Your task to perform on an android device: turn off javascript in the chrome app Image 0: 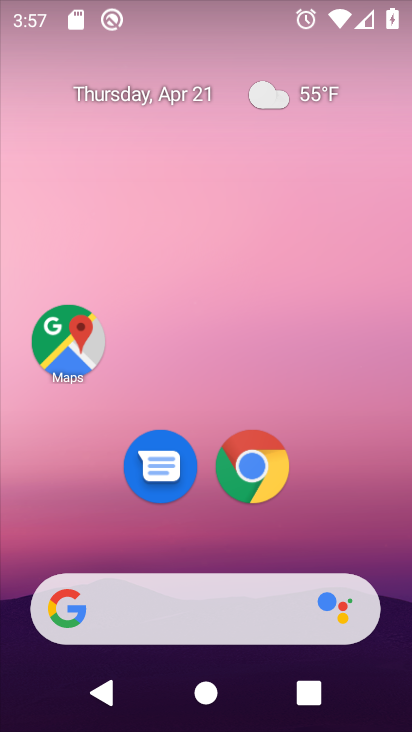
Step 0: click (251, 469)
Your task to perform on an android device: turn off javascript in the chrome app Image 1: 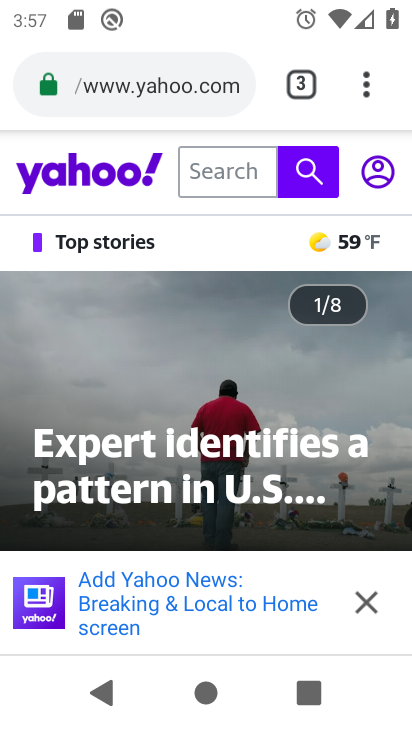
Step 1: click (366, 91)
Your task to perform on an android device: turn off javascript in the chrome app Image 2: 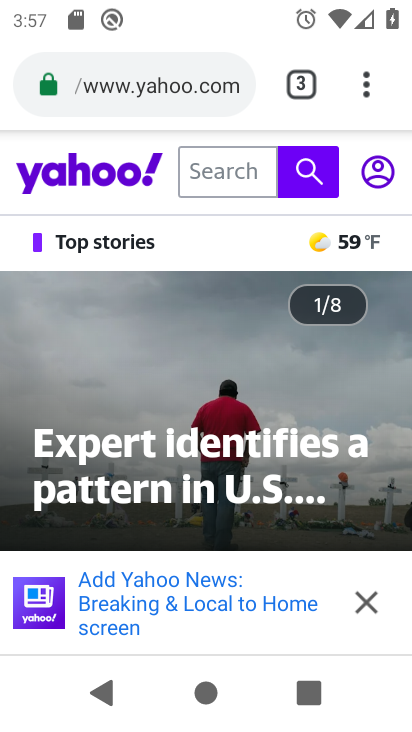
Step 2: click (366, 91)
Your task to perform on an android device: turn off javascript in the chrome app Image 3: 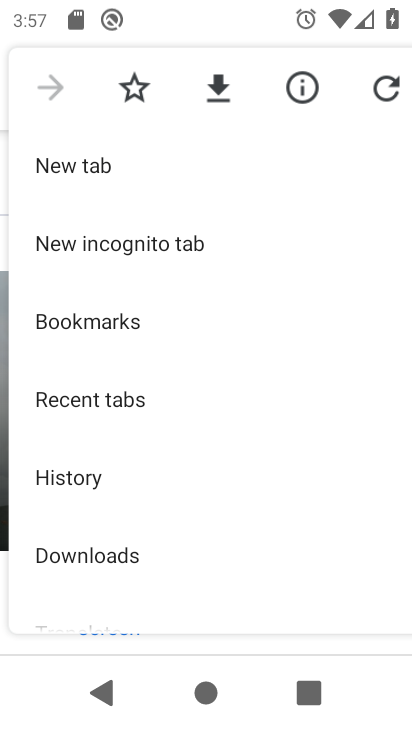
Step 3: drag from (231, 555) to (140, 96)
Your task to perform on an android device: turn off javascript in the chrome app Image 4: 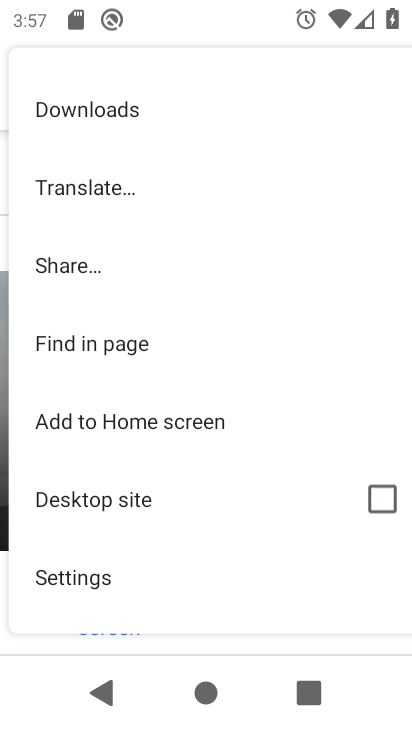
Step 4: click (141, 573)
Your task to perform on an android device: turn off javascript in the chrome app Image 5: 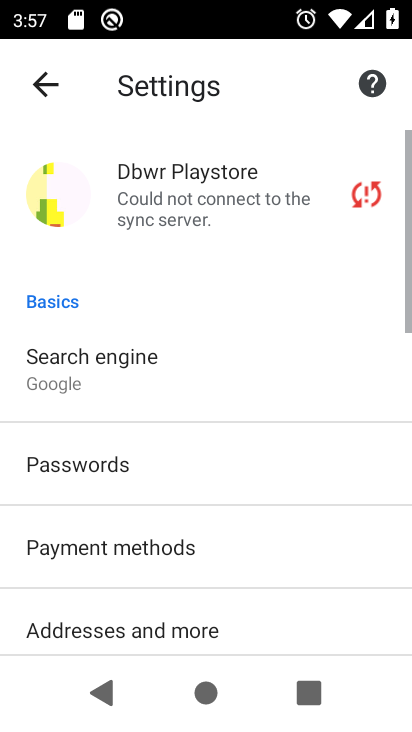
Step 5: drag from (200, 530) to (180, 72)
Your task to perform on an android device: turn off javascript in the chrome app Image 6: 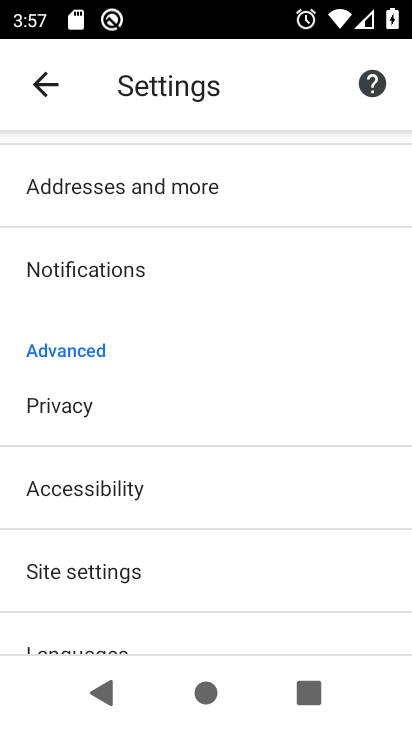
Step 6: drag from (151, 551) to (164, 165)
Your task to perform on an android device: turn off javascript in the chrome app Image 7: 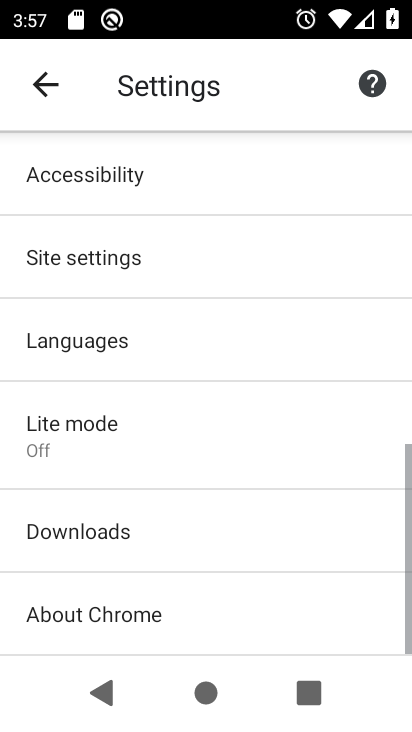
Step 7: click (160, 269)
Your task to perform on an android device: turn off javascript in the chrome app Image 8: 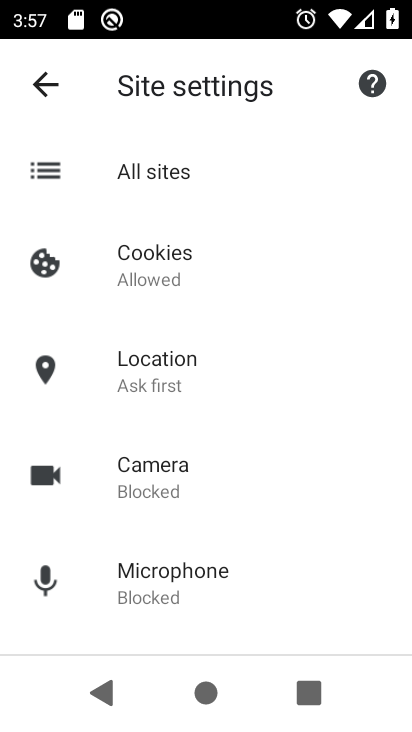
Step 8: drag from (232, 515) to (214, 159)
Your task to perform on an android device: turn off javascript in the chrome app Image 9: 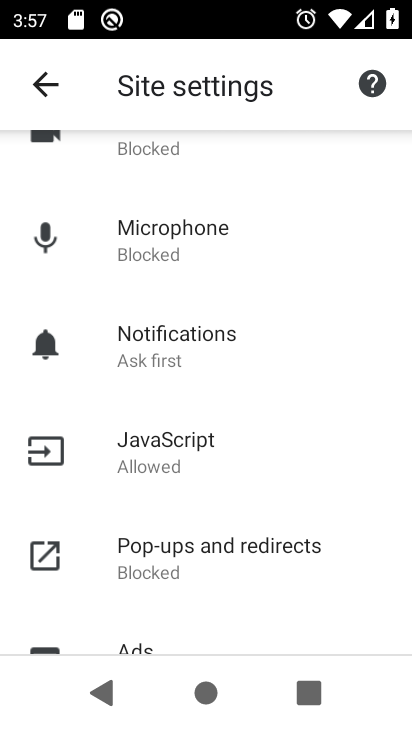
Step 9: click (240, 444)
Your task to perform on an android device: turn off javascript in the chrome app Image 10: 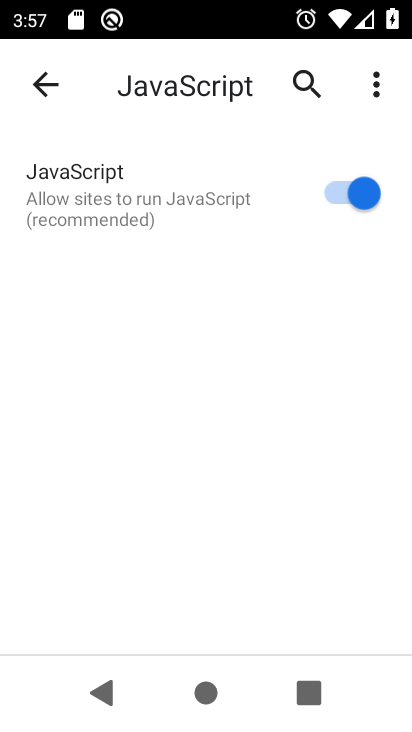
Step 10: click (333, 189)
Your task to perform on an android device: turn off javascript in the chrome app Image 11: 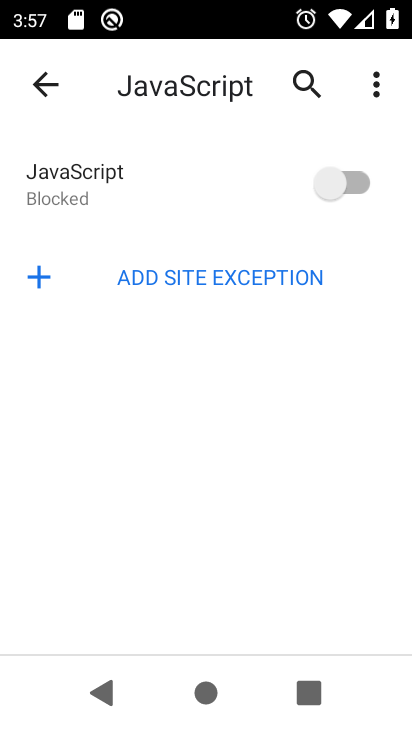
Step 11: task complete